Your task to perform on an android device: Is it going to rain this weekend? Image 0: 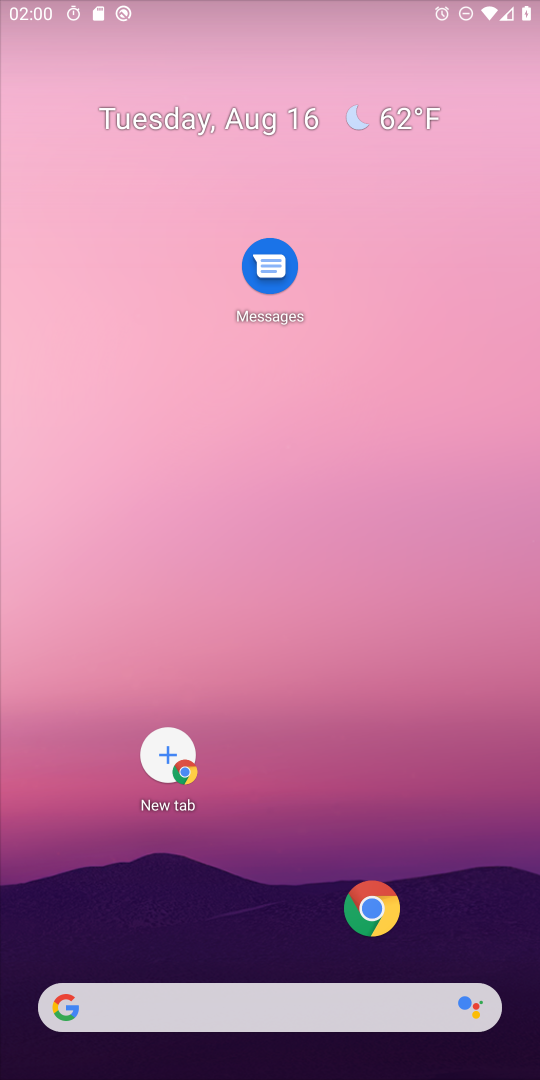
Step 0: press home button
Your task to perform on an android device: Is it going to rain this weekend? Image 1: 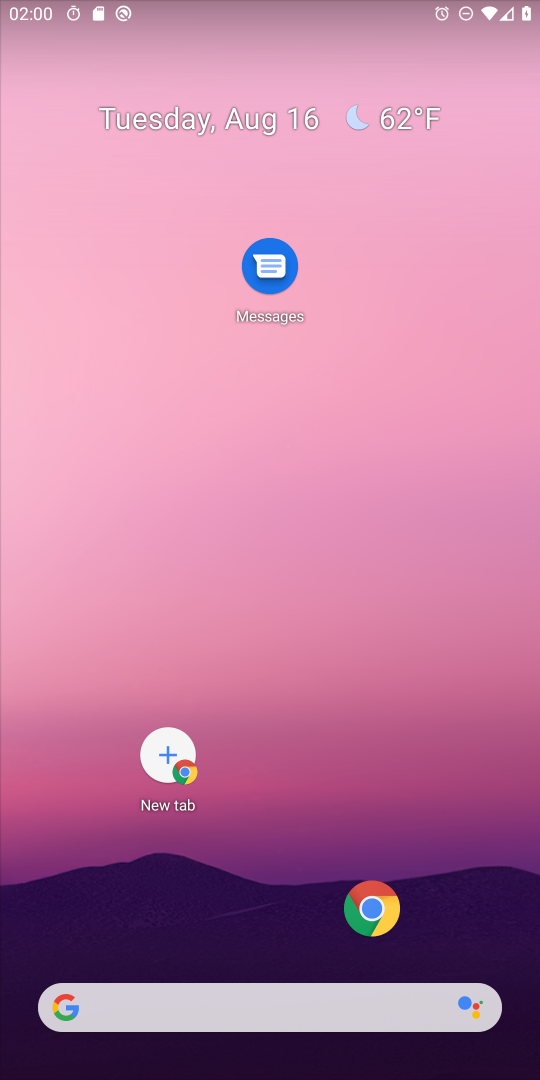
Step 1: click (388, 124)
Your task to perform on an android device: Is it going to rain this weekend? Image 2: 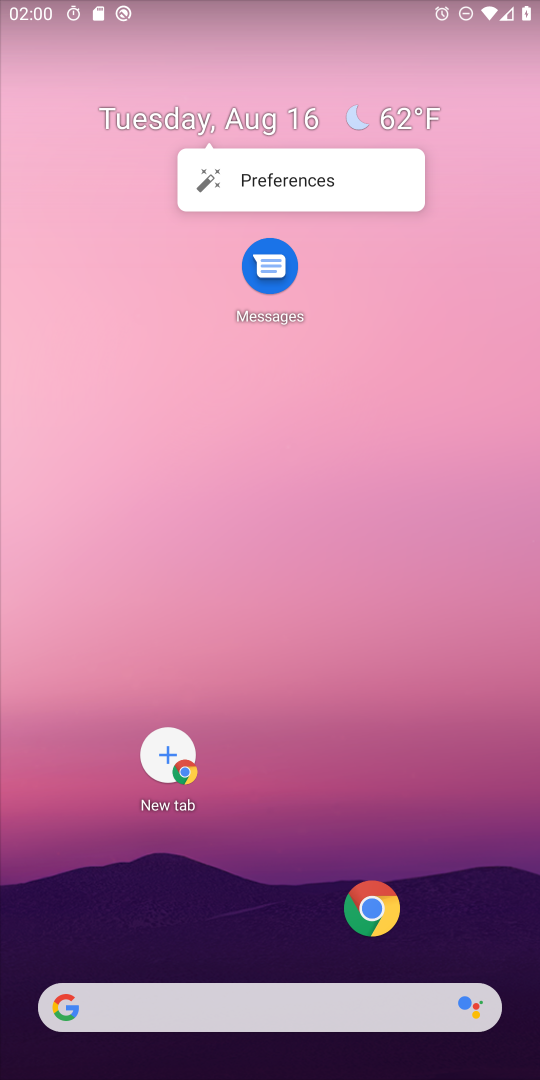
Step 2: click (388, 124)
Your task to perform on an android device: Is it going to rain this weekend? Image 3: 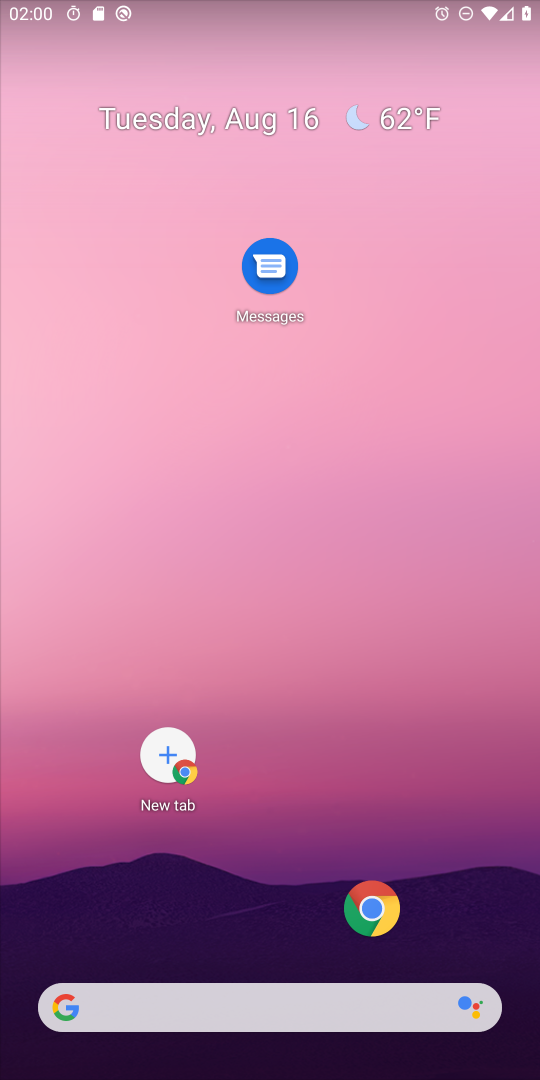
Step 3: click (388, 124)
Your task to perform on an android device: Is it going to rain this weekend? Image 4: 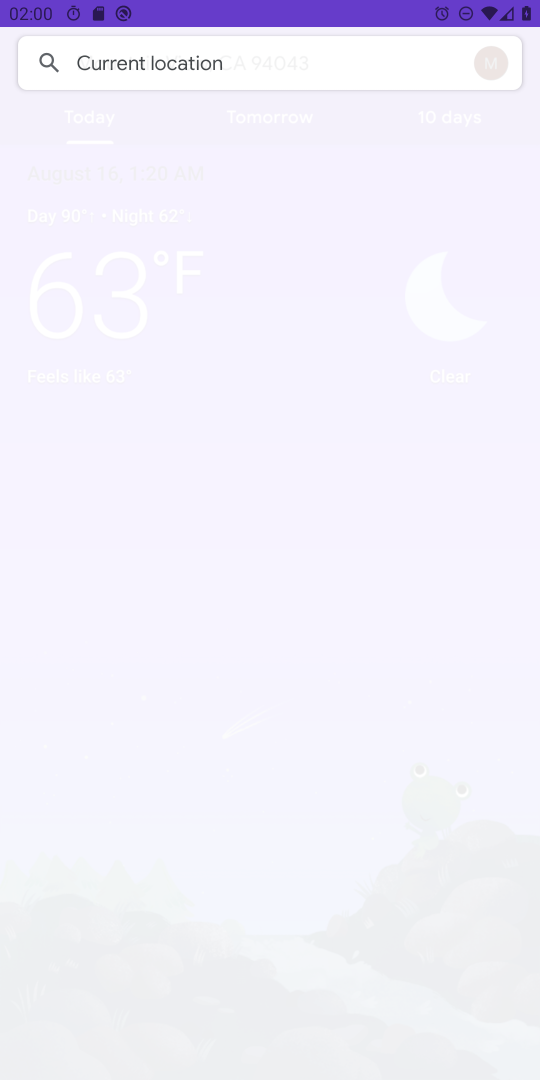
Step 4: click (388, 124)
Your task to perform on an android device: Is it going to rain this weekend? Image 5: 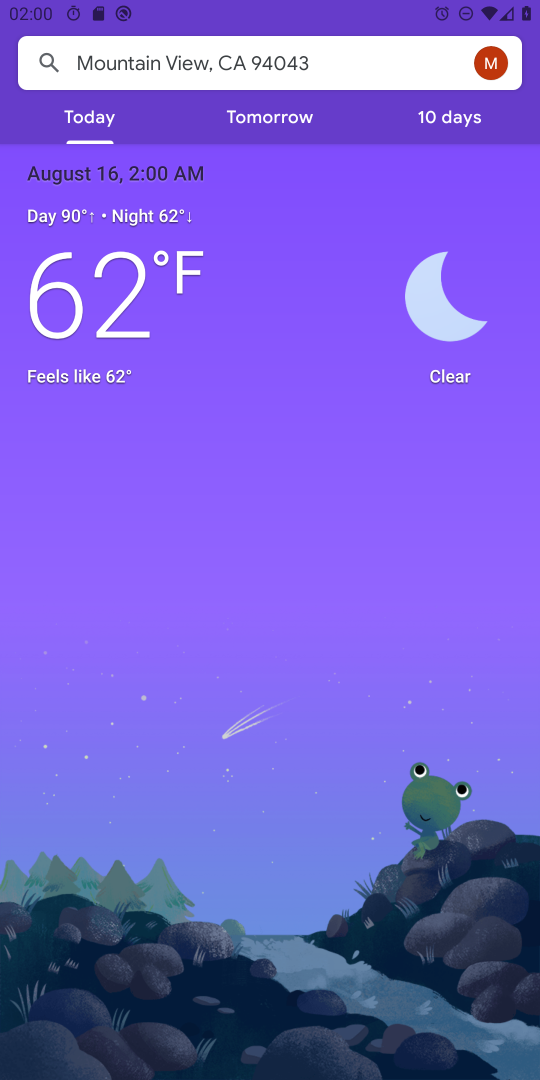
Step 5: click (433, 135)
Your task to perform on an android device: Is it going to rain this weekend? Image 6: 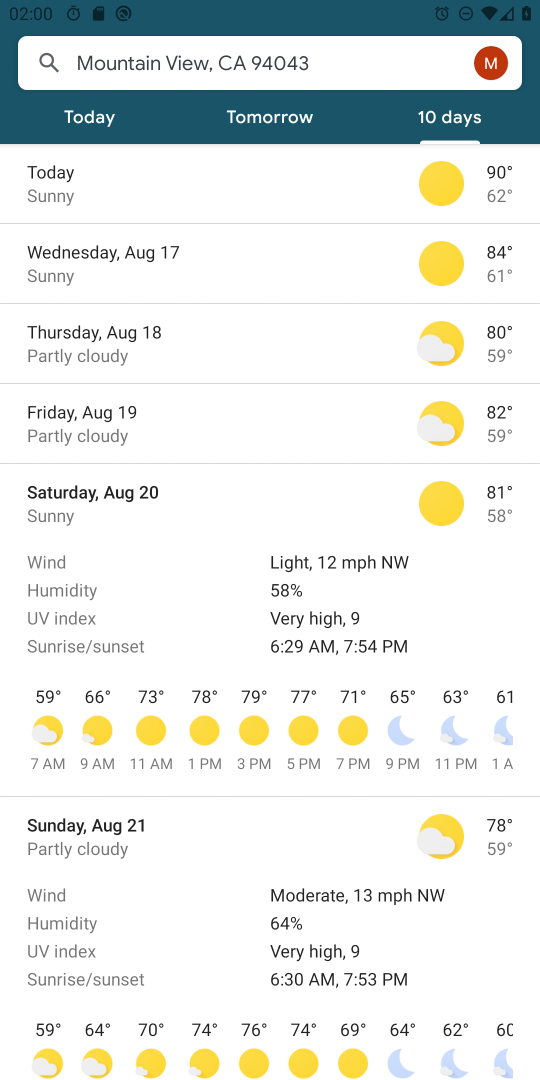
Step 6: task complete